Your task to perform on an android device: Go to Google maps Image 0: 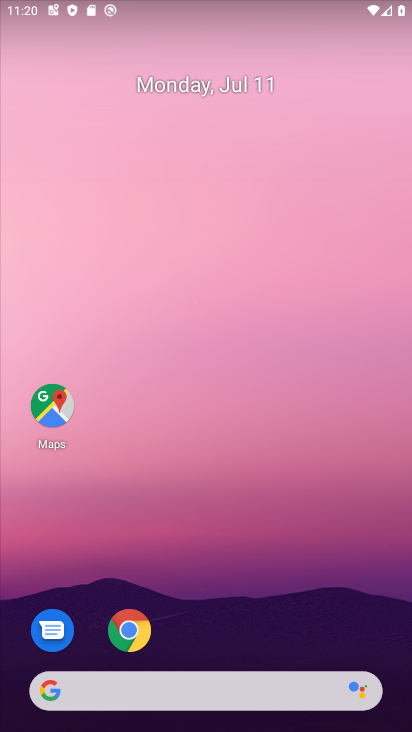
Step 0: click (61, 398)
Your task to perform on an android device: Go to Google maps Image 1: 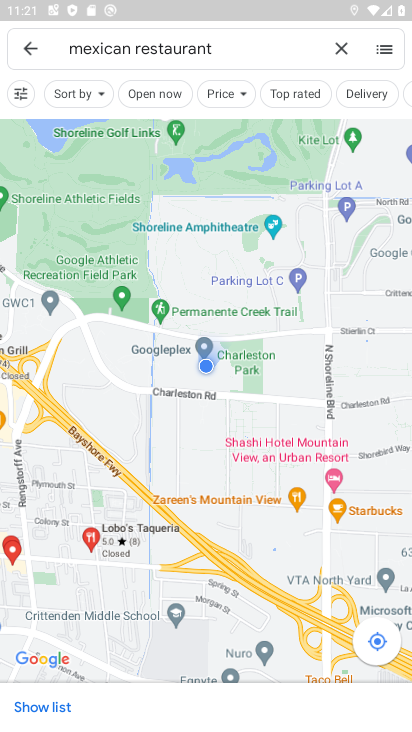
Step 1: task complete